Your task to perform on an android device: set the timer Image 0: 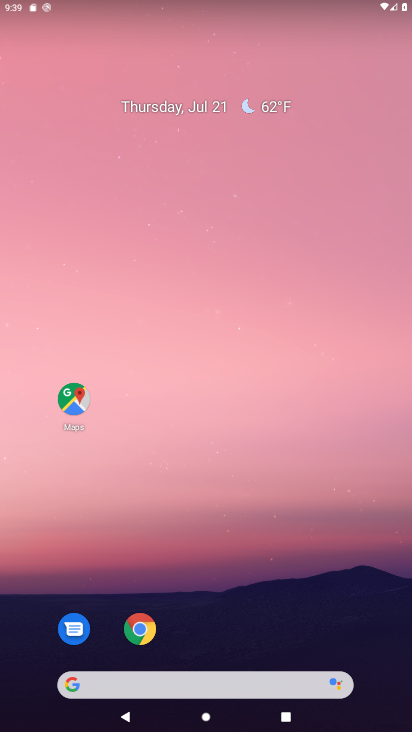
Step 0: drag from (206, 680) to (213, 223)
Your task to perform on an android device: set the timer Image 1: 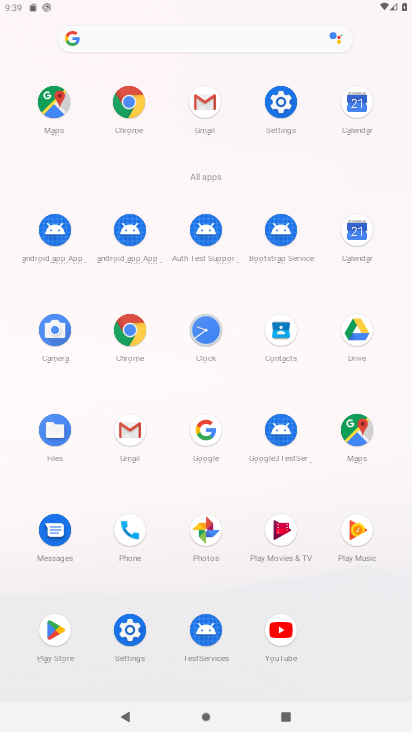
Step 1: click (215, 324)
Your task to perform on an android device: set the timer Image 2: 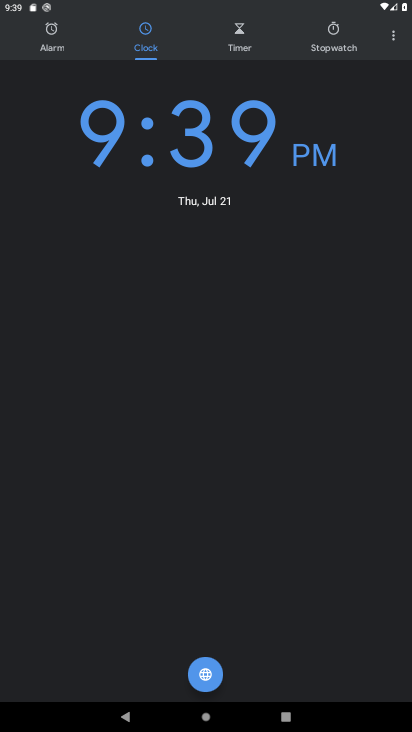
Step 2: click (242, 37)
Your task to perform on an android device: set the timer Image 3: 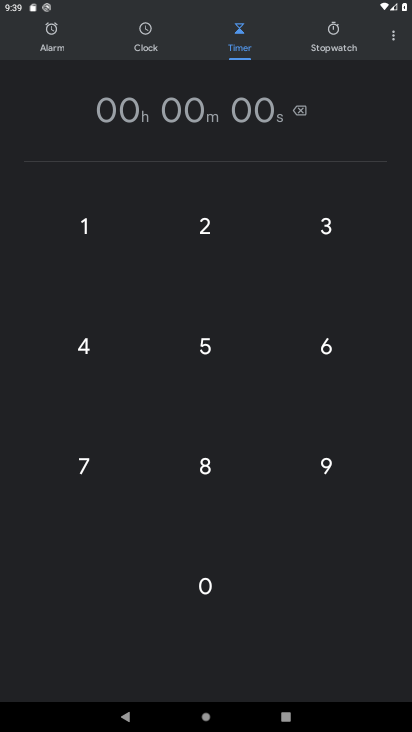
Step 3: click (214, 88)
Your task to perform on an android device: set the timer Image 4: 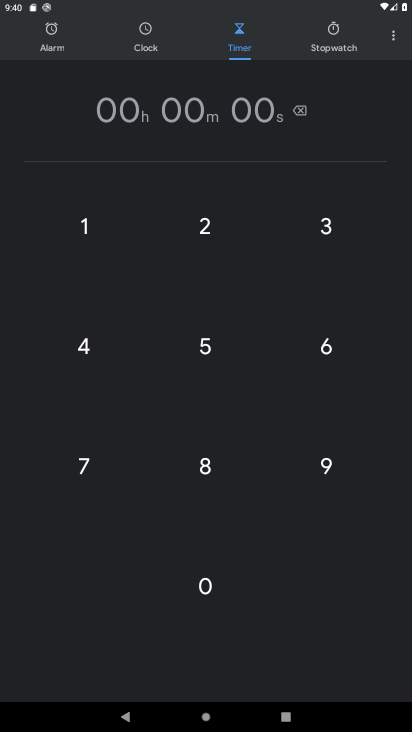
Step 4: type "899898989889898989 "
Your task to perform on an android device: set the timer Image 5: 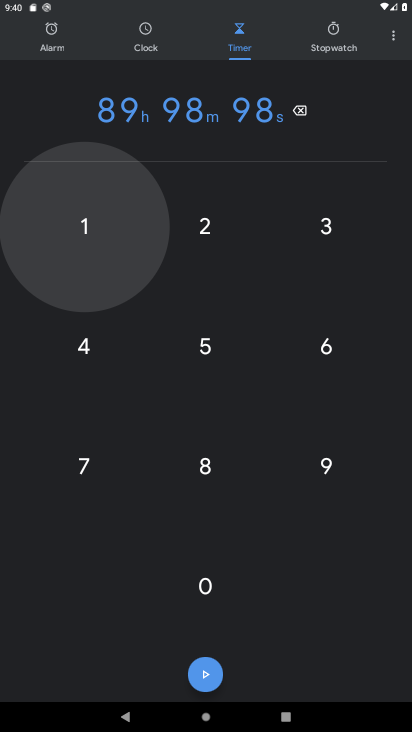
Step 5: click (211, 679)
Your task to perform on an android device: set the timer Image 6: 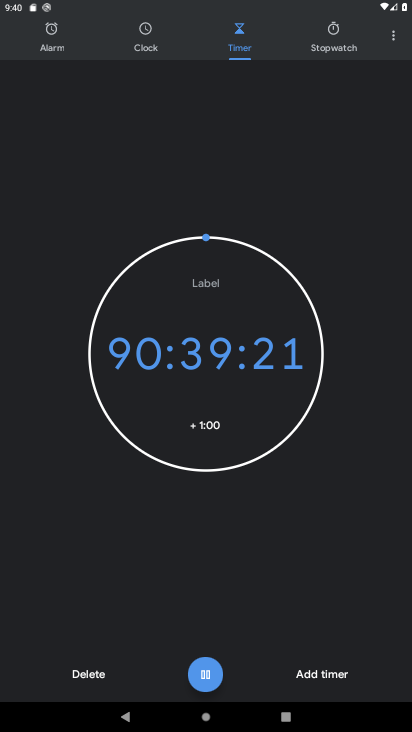
Step 6: task complete